Your task to perform on an android device: Open Google Image 0: 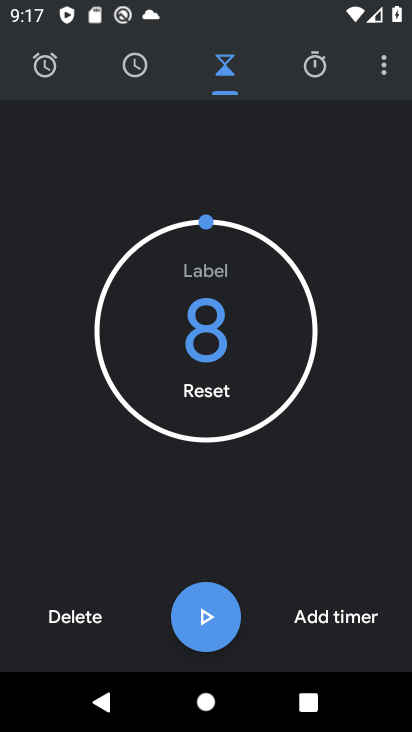
Step 0: press home button
Your task to perform on an android device: Open Google Image 1: 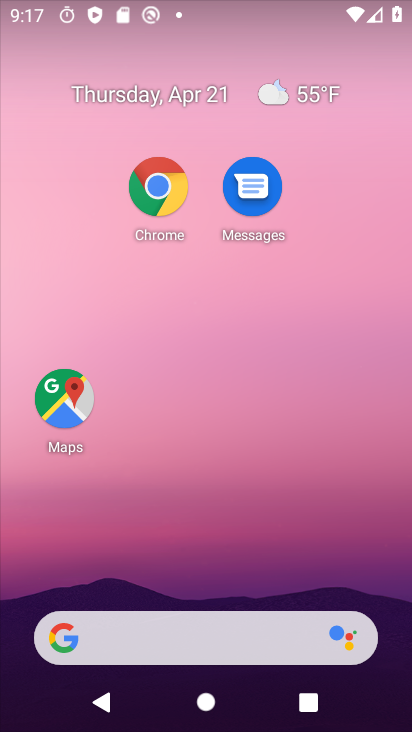
Step 1: click (181, 627)
Your task to perform on an android device: Open Google Image 2: 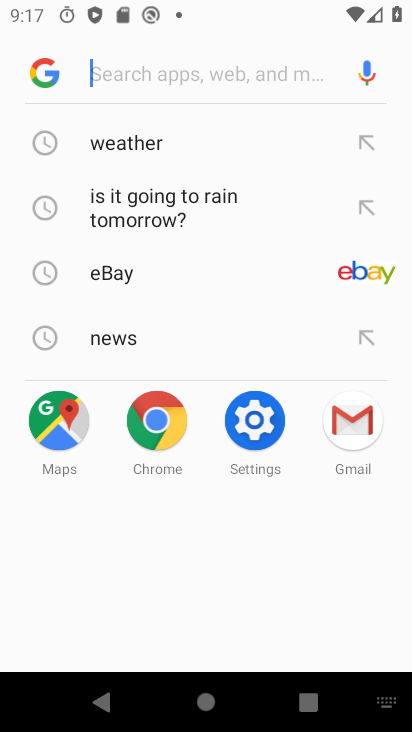
Step 2: type "google.com"
Your task to perform on an android device: Open Google Image 3: 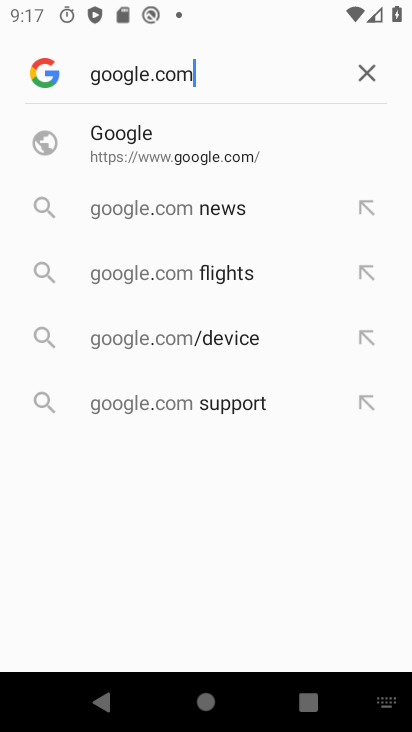
Step 3: click (165, 162)
Your task to perform on an android device: Open Google Image 4: 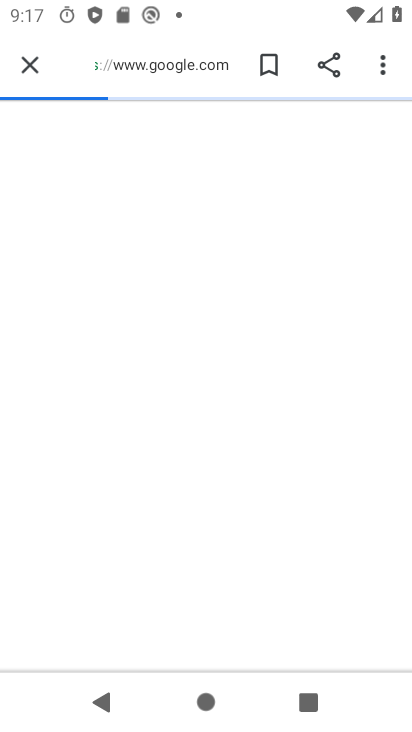
Step 4: task complete